Your task to perform on an android device: Show me popular games on the Play Store Image 0: 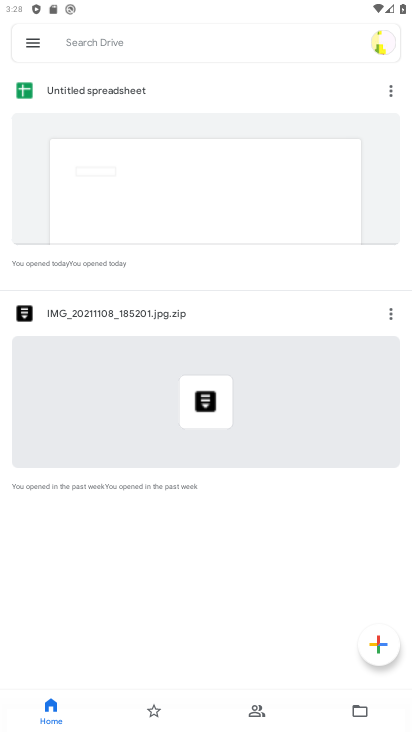
Step 0: press home button
Your task to perform on an android device: Show me popular games on the Play Store Image 1: 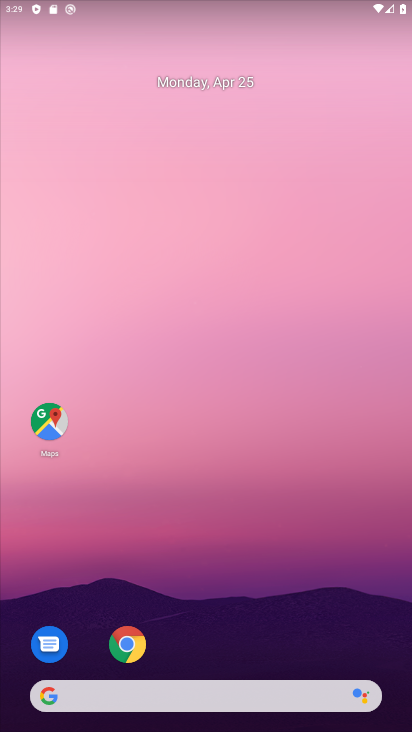
Step 1: drag from (222, 640) to (191, 80)
Your task to perform on an android device: Show me popular games on the Play Store Image 2: 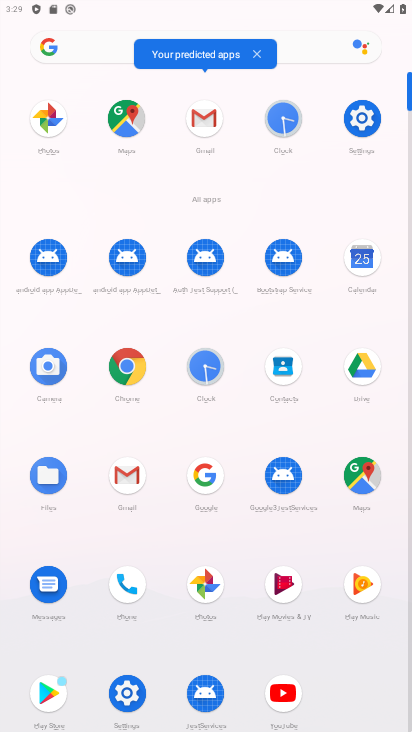
Step 2: click (40, 694)
Your task to perform on an android device: Show me popular games on the Play Store Image 3: 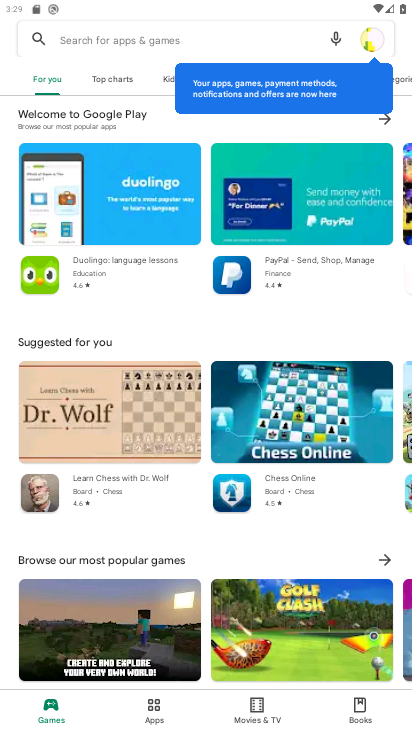
Step 3: click (341, 72)
Your task to perform on an android device: Show me popular games on the Play Store Image 4: 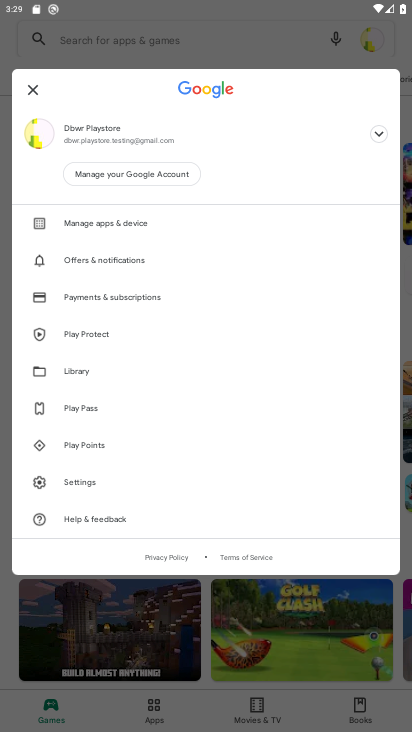
Step 4: click (30, 85)
Your task to perform on an android device: Show me popular games on the Play Store Image 5: 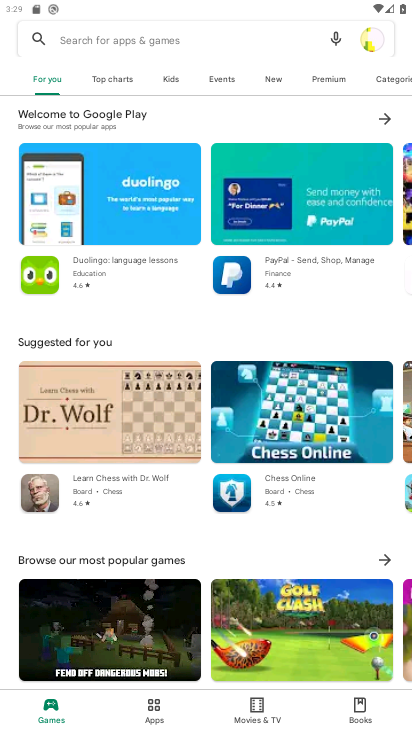
Step 5: click (401, 86)
Your task to perform on an android device: Show me popular games on the Play Store Image 6: 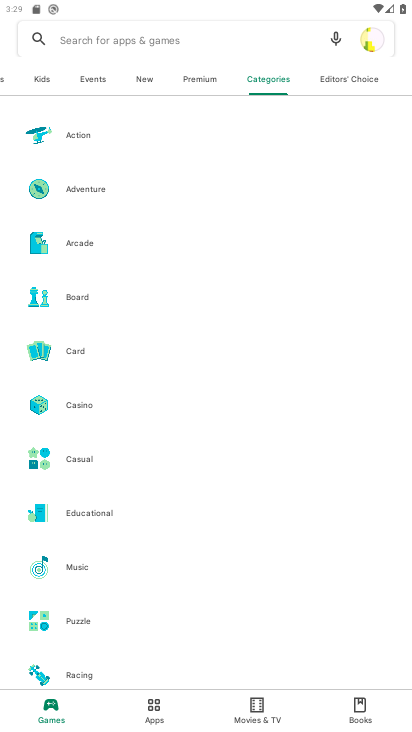
Step 6: drag from (248, 647) to (208, 284)
Your task to perform on an android device: Show me popular games on the Play Store Image 7: 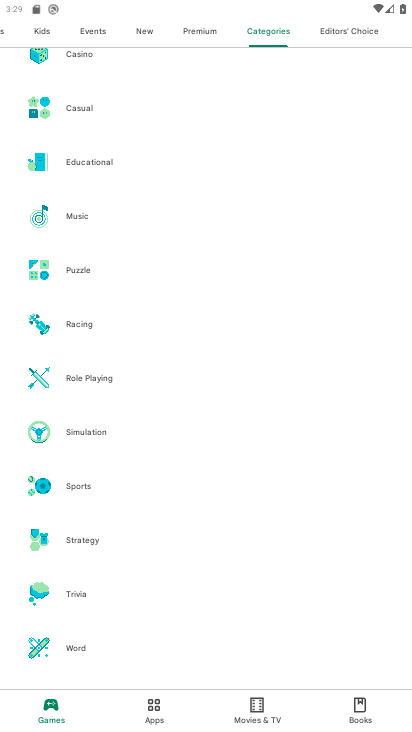
Step 7: drag from (229, 558) to (181, 197)
Your task to perform on an android device: Show me popular games on the Play Store Image 8: 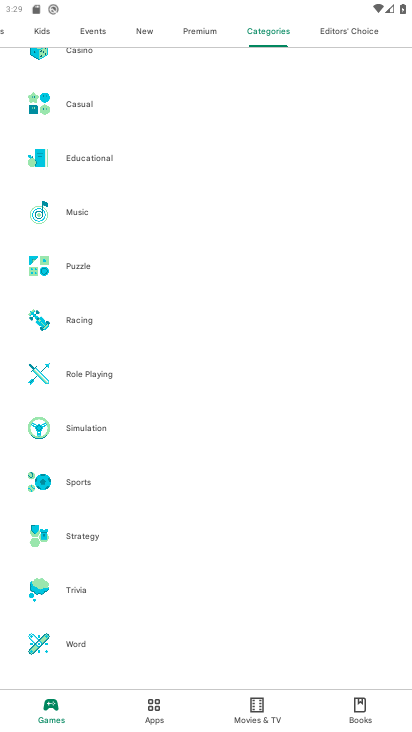
Step 8: click (3, 33)
Your task to perform on an android device: Show me popular games on the Play Store Image 9: 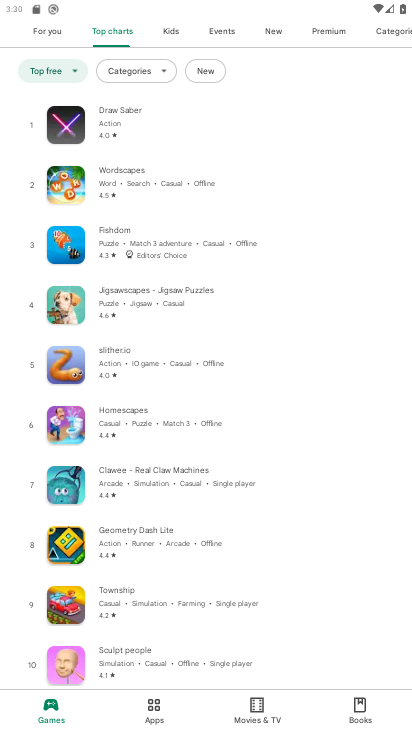
Step 9: task complete